Your task to perform on an android device: Go to internet settings Image 0: 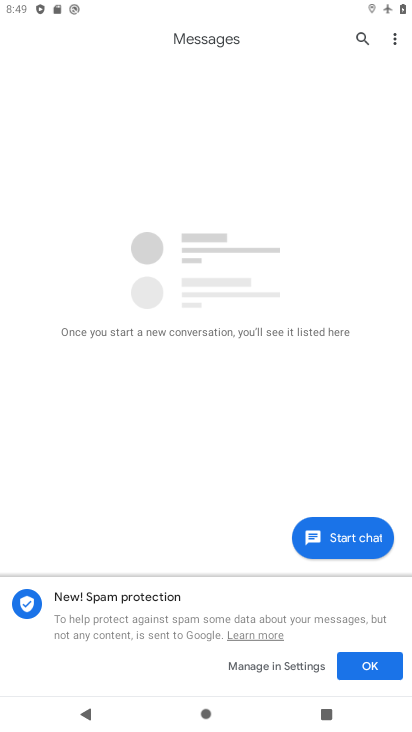
Step 0: press home button
Your task to perform on an android device: Go to internet settings Image 1: 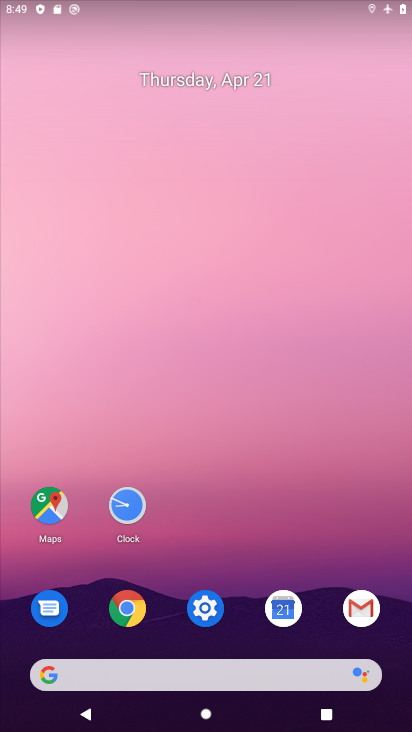
Step 1: click (210, 606)
Your task to perform on an android device: Go to internet settings Image 2: 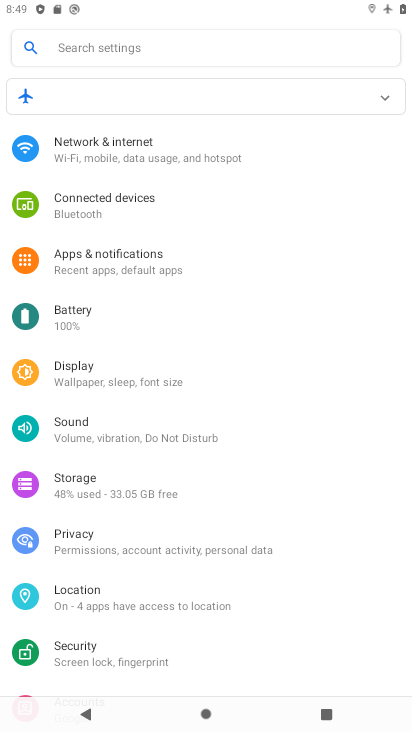
Step 2: click (94, 138)
Your task to perform on an android device: Go to internet settings Image 3: 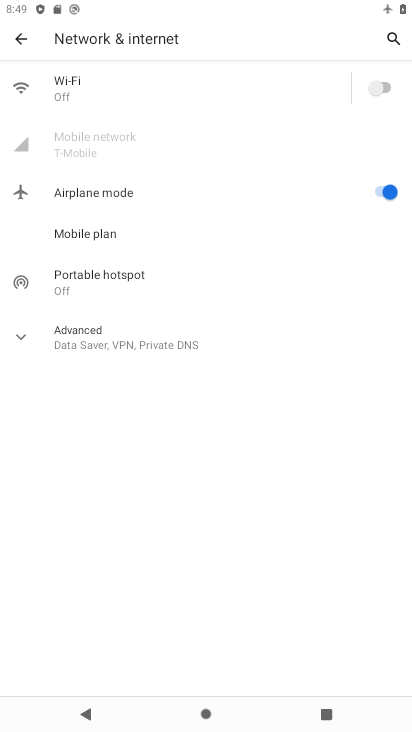
Step 3: task complete